Your task to perform on an android device: read, delete, or share a saved page in the chrome app Image 0: 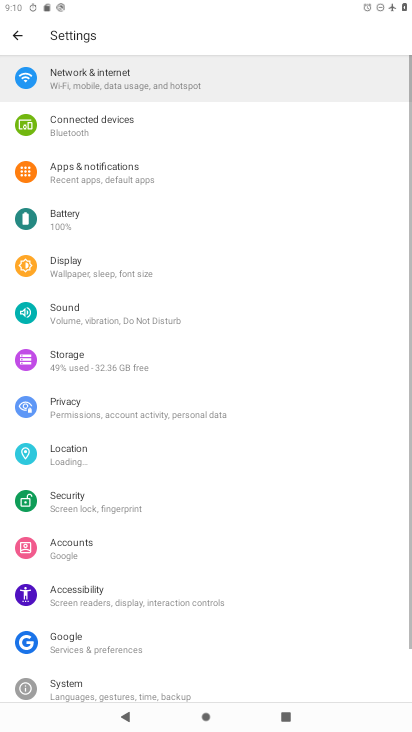
Step 0: press home button
Your task to perform on an android device: read, delete, or share a saved page in the chrome app Image 1: 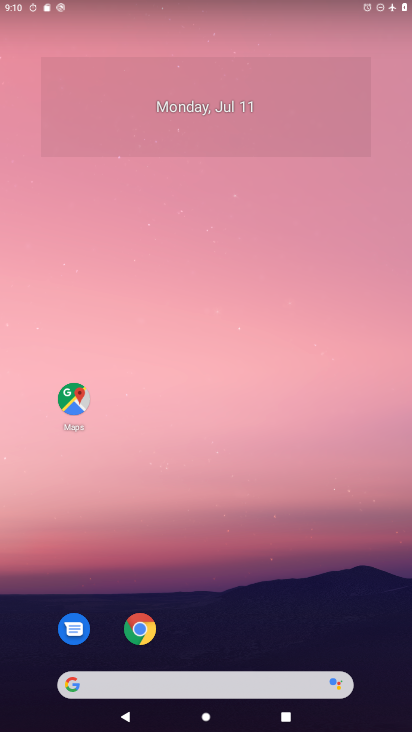
Step 1: click (142, 630)
Your task to perform on an android device: read, delete, or share a saved page in the chrome app Image 2: 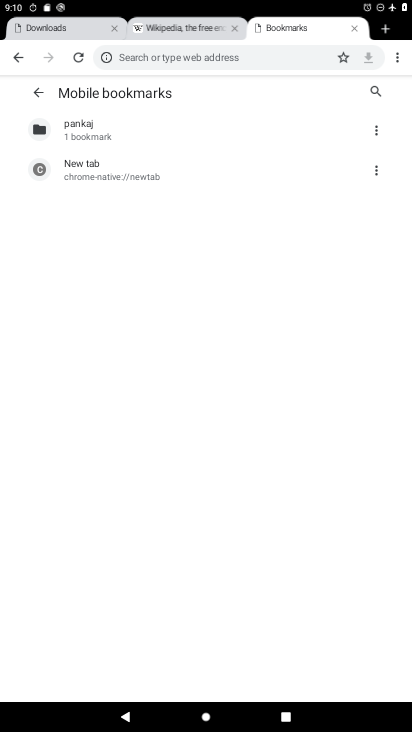
Step 2: click (390, 60)
Your task to perform on an android device: read, delete, or share a saved page in the chrome app Image 3: 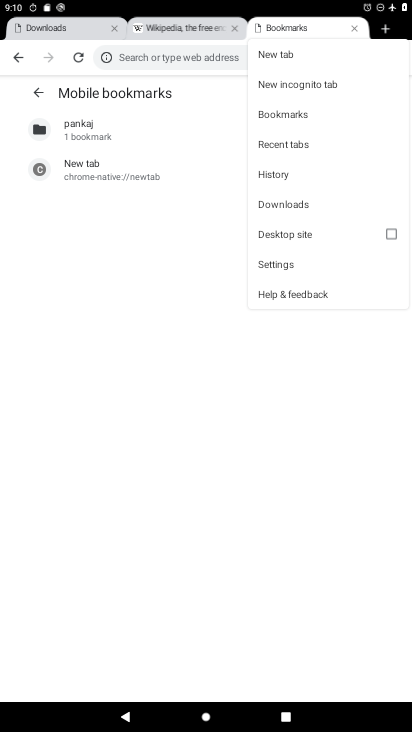
Step 3: click (283, 201)
Your task to perform on an android device: read, delete, or share a saved page in the chrome app Image 4: 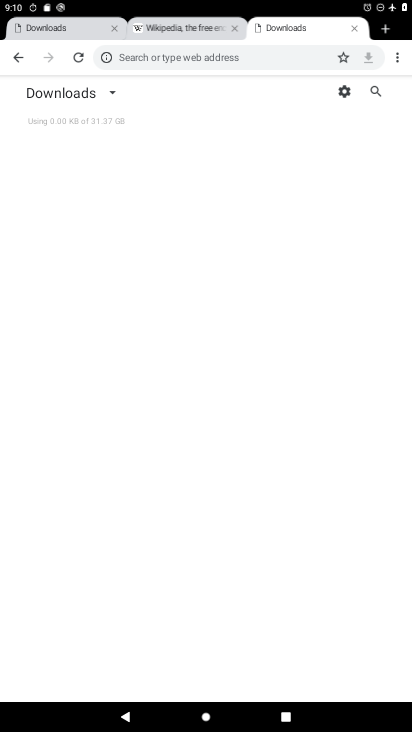
Step 4: task complete